Your task to perform on an android device: toggle improve location accuracy Image 0: 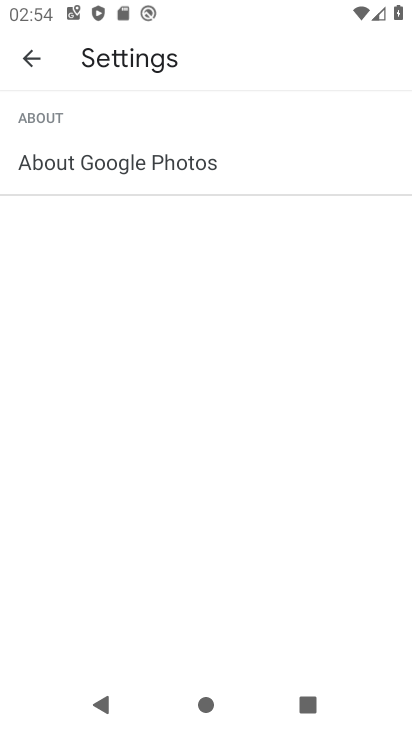
Step 0: press home button
Your task to perform on an android device: toggle improve location accuracy Image 1: 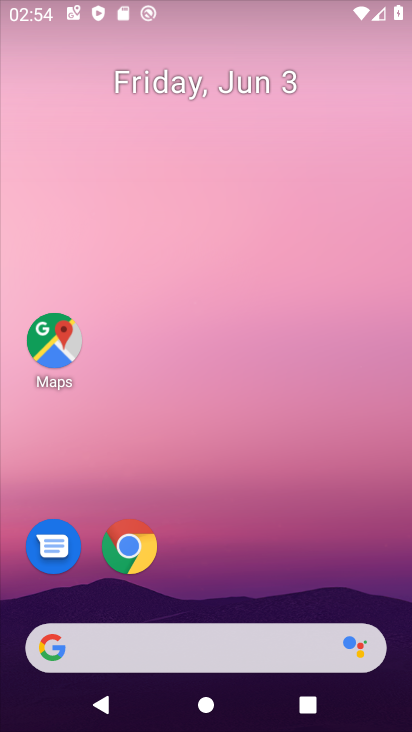
Step 1: drag from (247, 585) to (401, 25)
Your task to perform on an android device: toggle improve location accuracy Image 2: 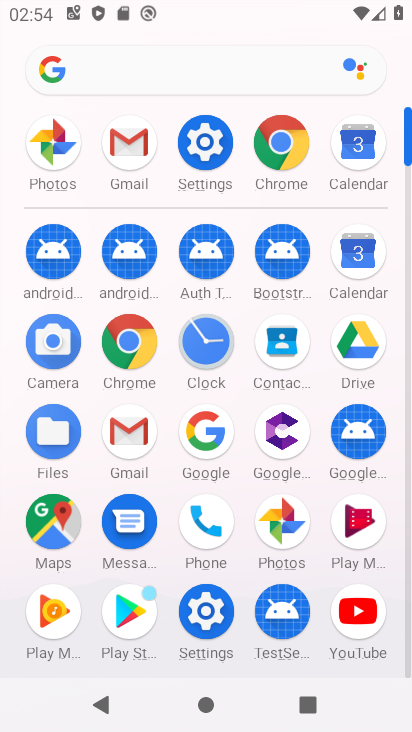
Step 2: click (209, 129)
Your task to perform on an android device: toggle improve location accuracy Image 3: 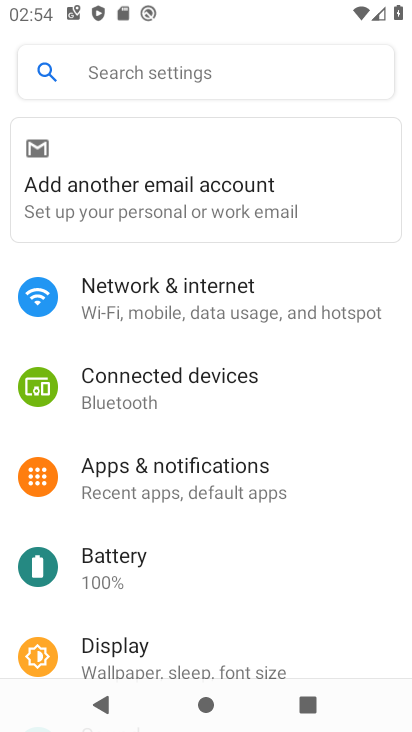
Step 3: drag from (253, 585) to (314, 245)
Your task to perform on an android device: toggle improve location accuracy Image 4: 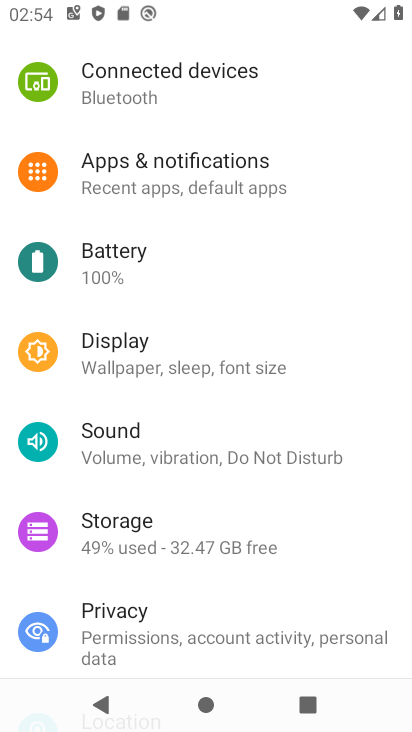
Step 4: drag from (210, 493) to (235, 373)
Your task to perform on an android device: toggle improve location accuracy Image 5: 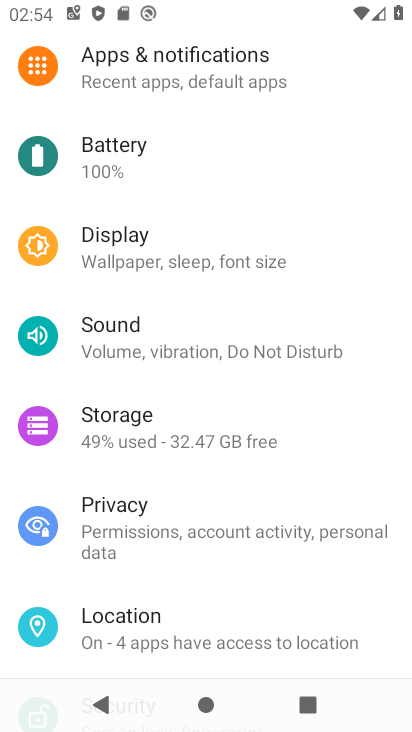
Step 5: click (186, 621)
Your task to perform on an android device: toggle improve location accuracy Image 6: 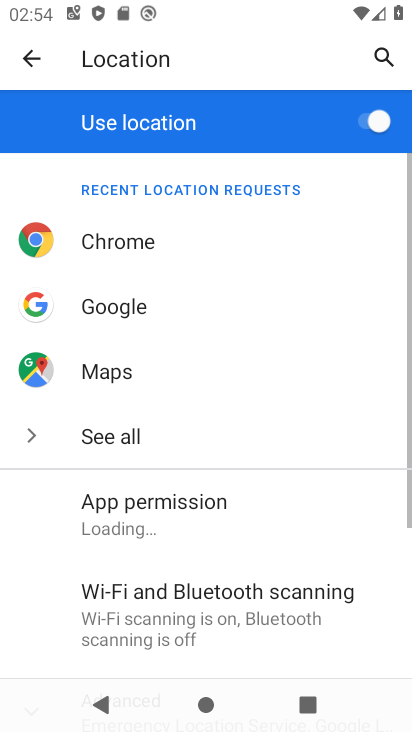
Step 6: drag from (184, 616) to (231, 313)
Your task to perform on an android device: toggle improve location accuracy Image 7: 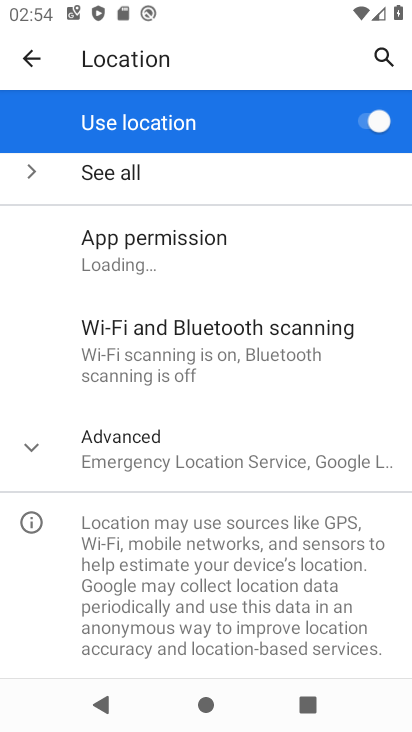
Step 7: click (183, 461)
Your task to perform on an android device: toggle improve location accuracy Image 8: 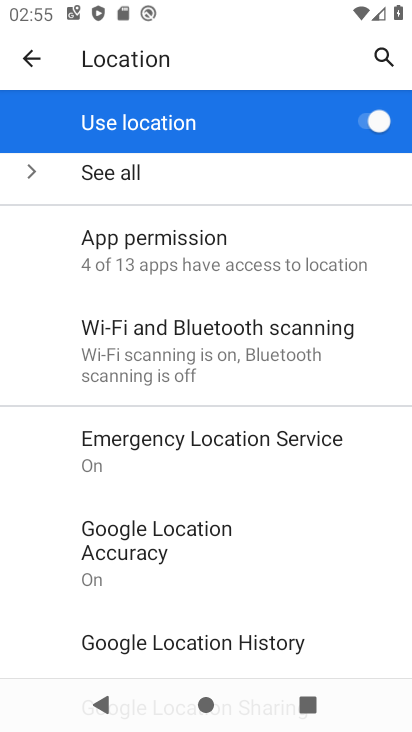
Step 8: drag from (166, 558) to (184, 315)
Your task to perform on an android device: toggle improve location accuracy Image 9: 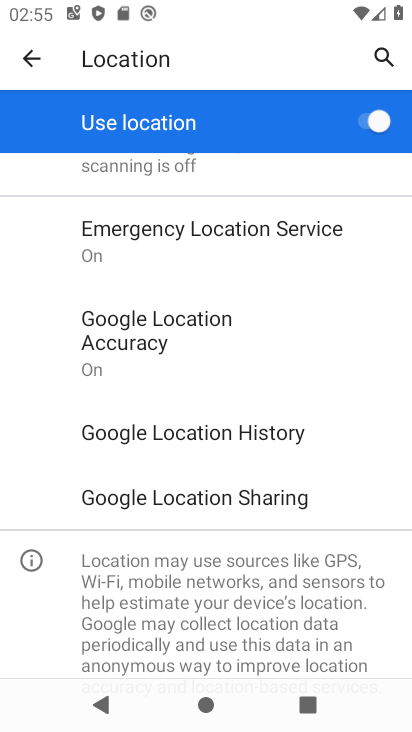
Step 9: click (157, 340)
Your task to perform on an android device: toggle improve location accuracy Image 10: 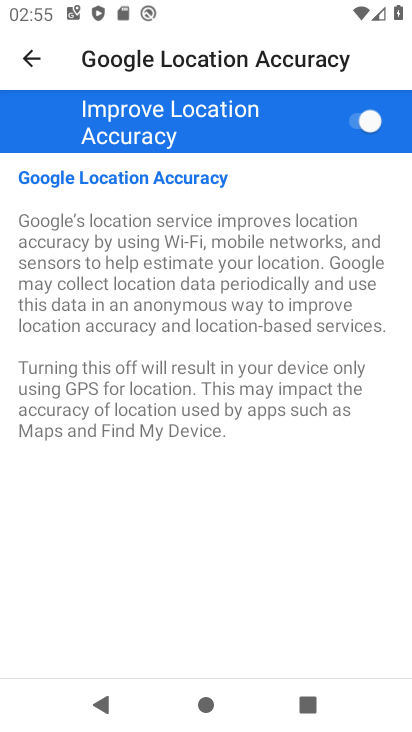
Step 10: click (357, 130)
Your task to perform on an android device: toggle improve location accuracy Image 11: 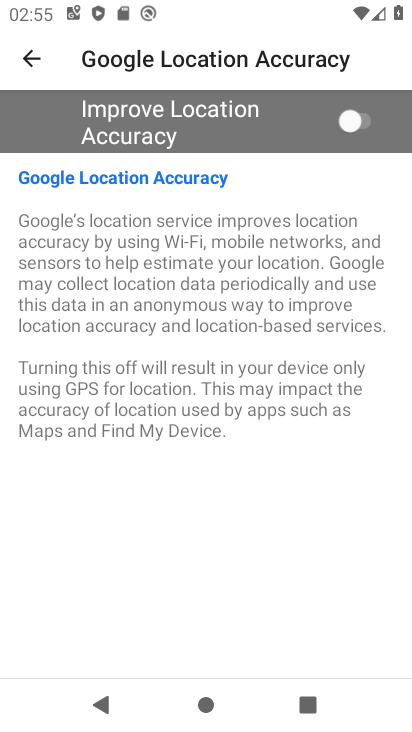
Step 11: task complete